Your task to perform on an android device: toggle wifi Image 0: 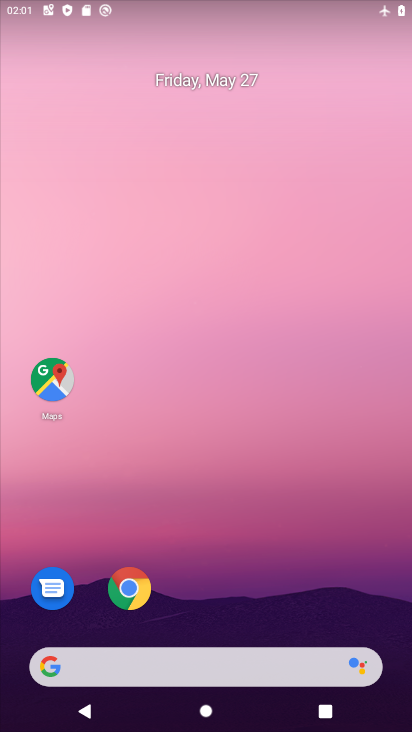
Step 0: drag from (375, 608) to (361, 144)
Your task to perform on an android device: toggle wifi Image 1: 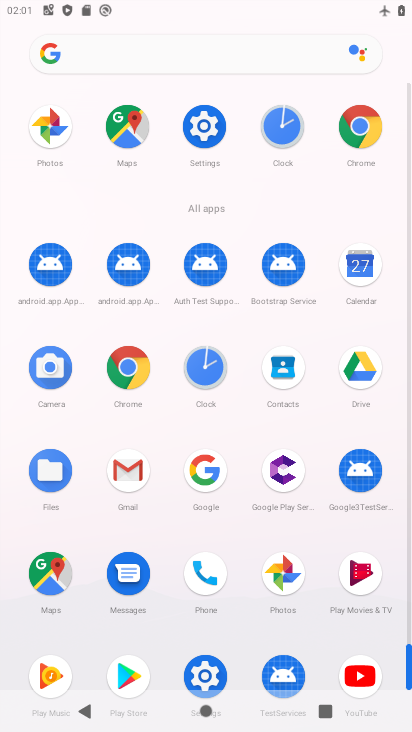
Step 1: click (202, 672)
Your task to perform on an android device: toggle wifi Image 2: 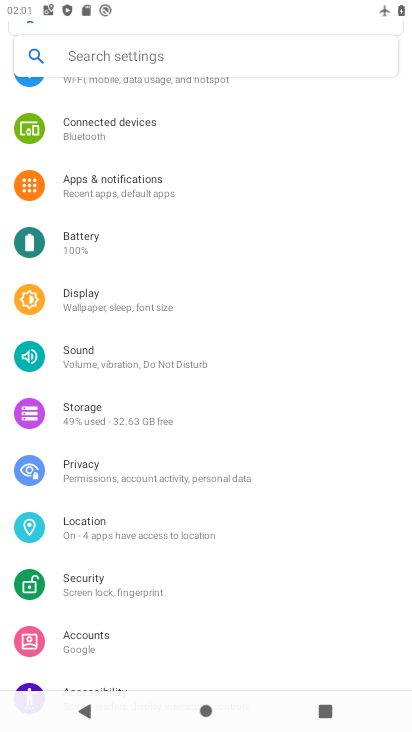
Step 2: drag from (273, 150) to (257, 447)
Your task to perform on an android device: toggle wifi Image 3: 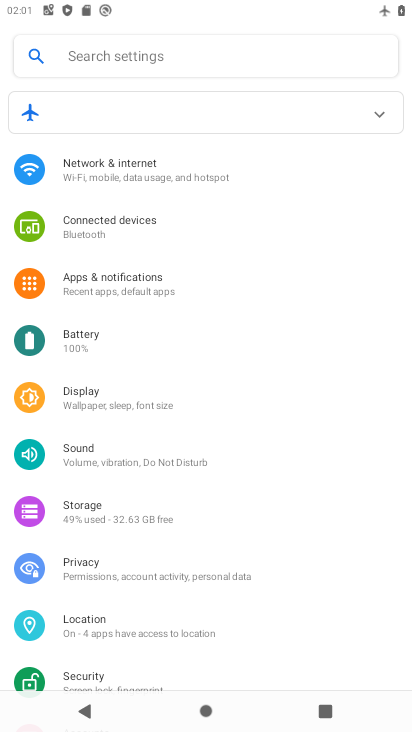
Step 3: click (115, 168)
Your task to perform on an android device: toggle wifi Image 4: 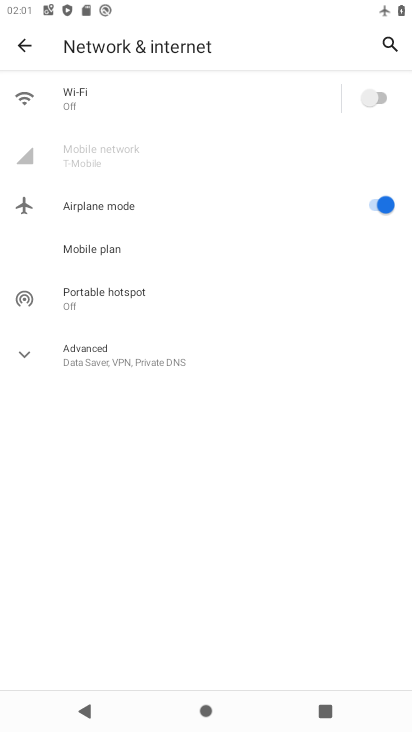
Step 4: click (380, 96)
Your task to perform on an android device: toggle wifi Image 5: 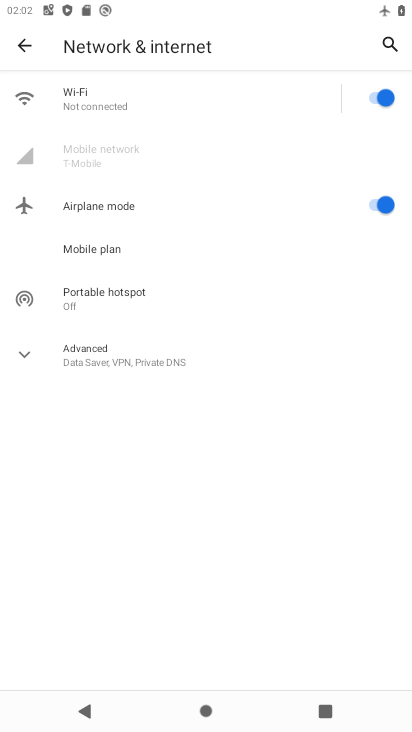
Step 5: task complete